Your task to perform on an android device: toggle translation in the chrome app Image 0: 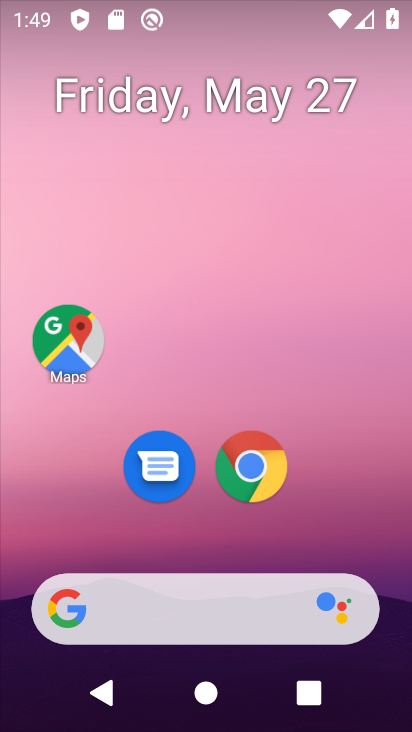
Step 0: click (259, 459)
Your task to perform on an android device: toggle translation in the chrome app Image 1: 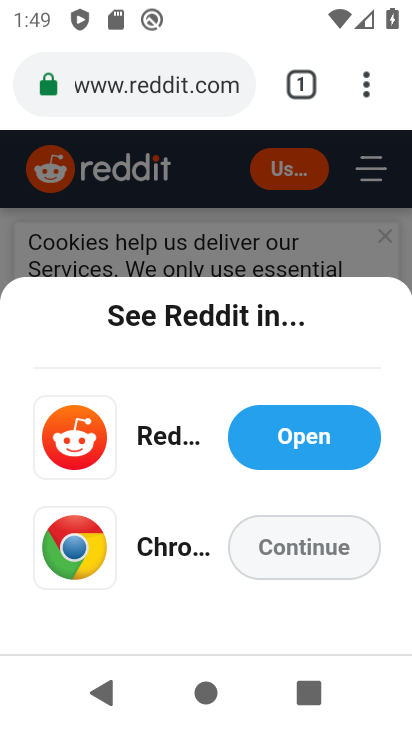
Step 1: click (298, 546)
Your task to perform on an android device: toggle translation in the chrome app Image 2: 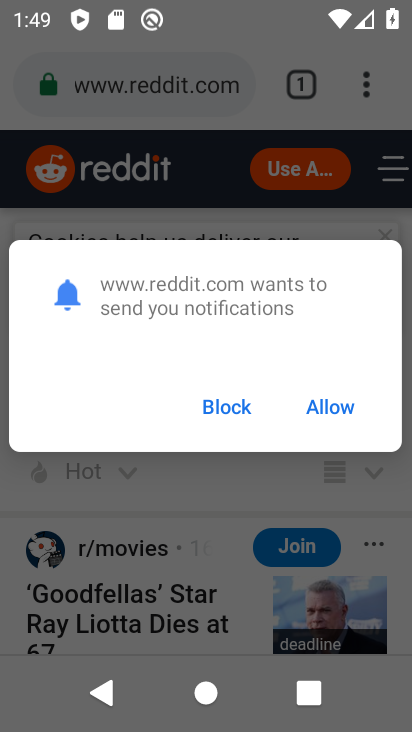
Step 2: click (331, 409)
Your task to perform on an android device: toggle translation in the chrome app Image 3: 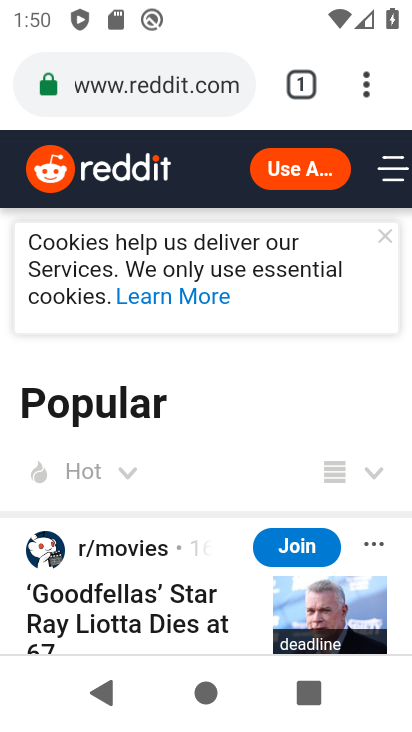
Step 3: click (377, 96)
Your task to perform on an android device: toggle translation in the chrome app Image 4: 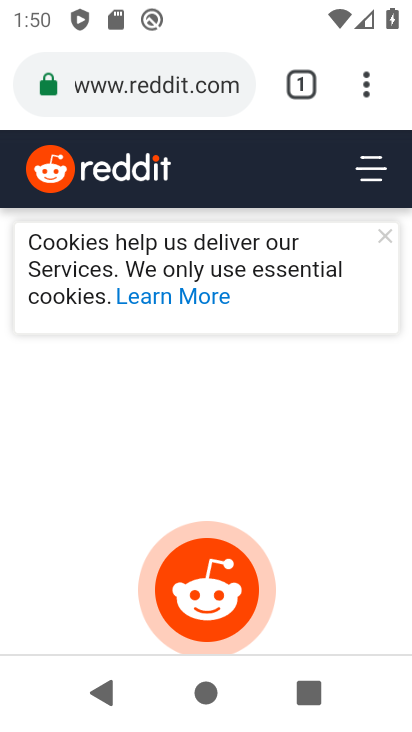
Step 4: drag from (251, 548) to (206, 173)
Your task to perform on an android device: toggle translation in the chrome app Image 5: 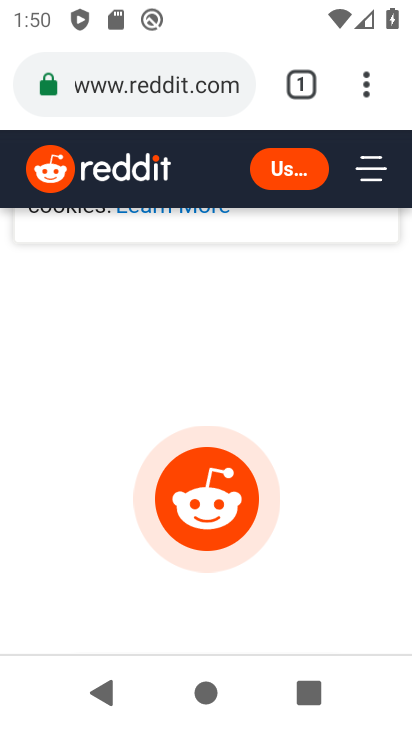
Step 5: click (363, 91)
Your task to perform on an android device: toggle translation in the chrome app Image 6: 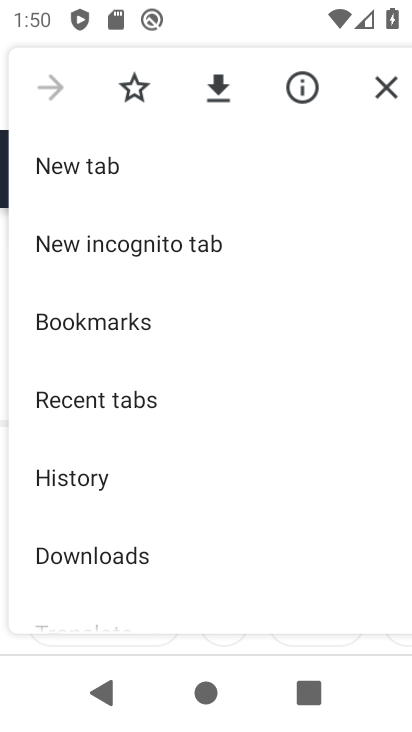
Step 6: drag from (186, 520) to (160, 204)
Your task to perform on an android device: toggle translation in the chrome app Image 7: 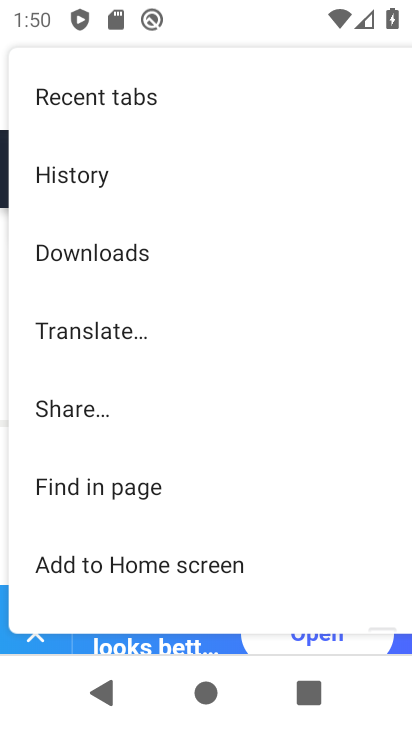
Step 7: drag from (194, 591) to (198, 318)
Your task to perform on an android device: toggle translation in the chrome app Image 8: 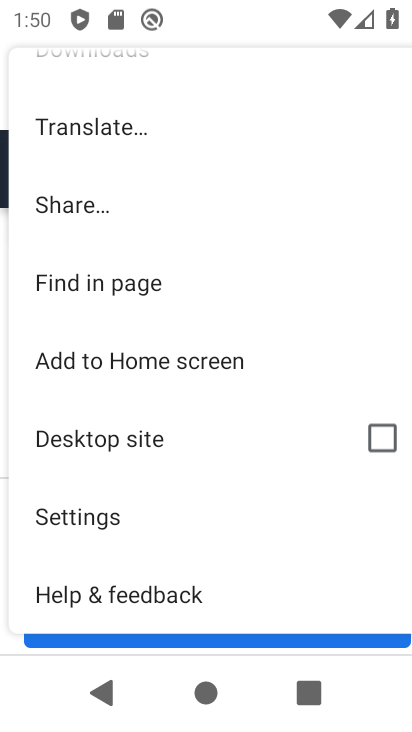
Step 8: click (158, 519)
Your task to perform on an android device: toggle translation in the chrome app Image 9: 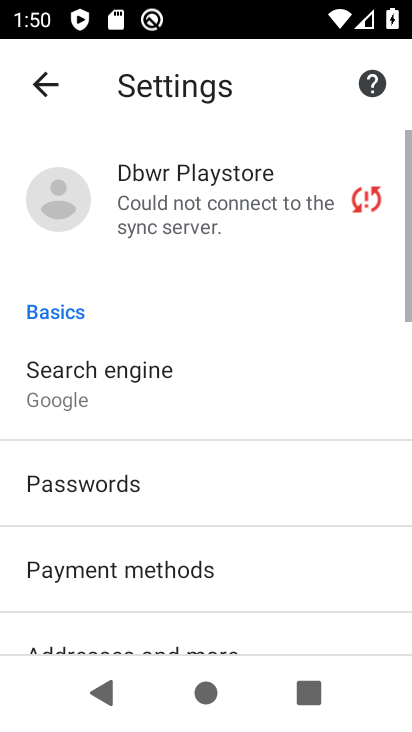
Step 9: drag from (200, 523) to (202, 293)
Your task to perform on an android device: toggle translation in the chrome app Image 10: 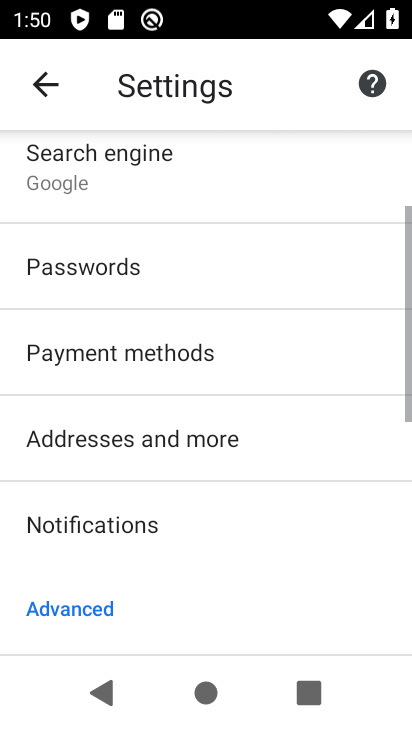
Step 10: drag from (186, 581) to (195, 259)
Your task to perform on an android device: toggle translation in the chrome app Image 11: 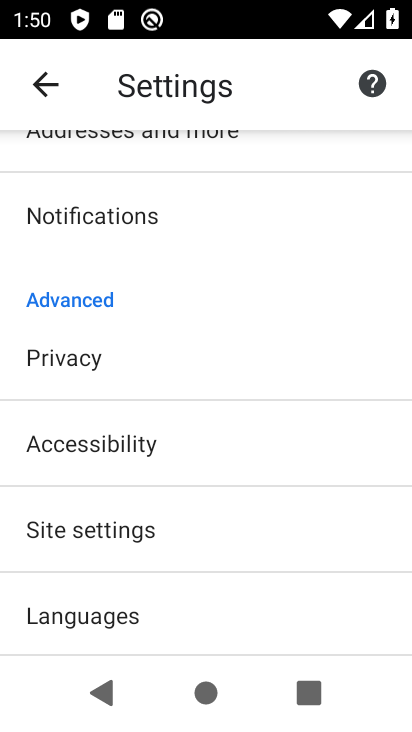
Step 11: click (167, 602)
Your task to perform on an android device: toggle translation in the chrome app Image 12: 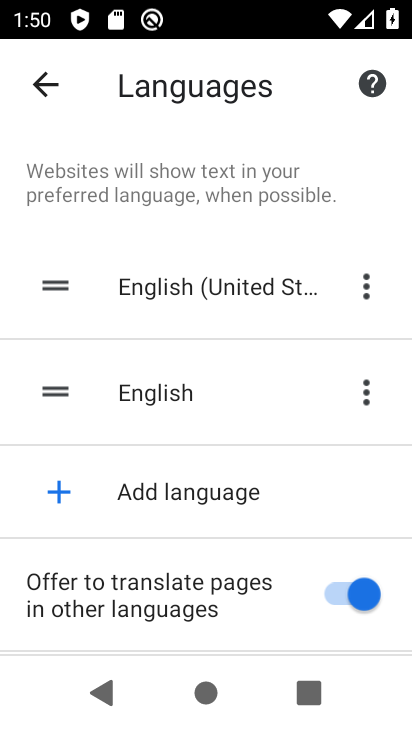
Step 12: click (346, 591)
Your task to perform on an android device: toggle translation in the chrome app Image 13: 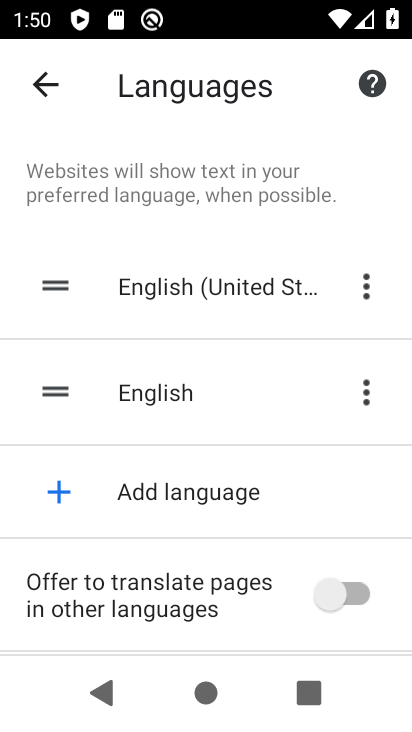
Step 13: task complete